Your task to perform on an android device: Show me popular games on the Play Store Image 0: 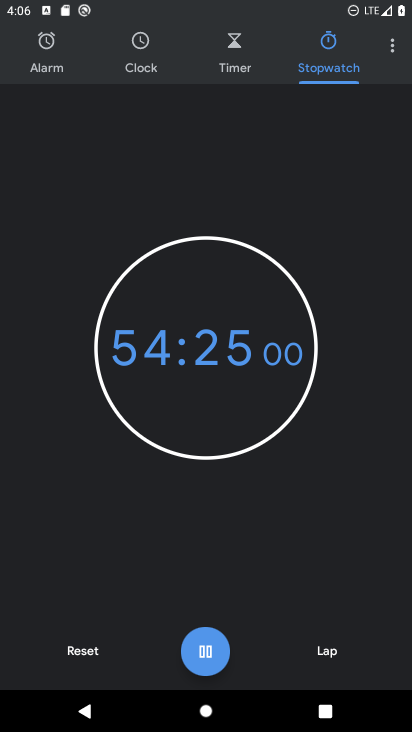
Step 0: press home button
Your task to perform on an android device: Show me popular games on the Play Store Image 1: 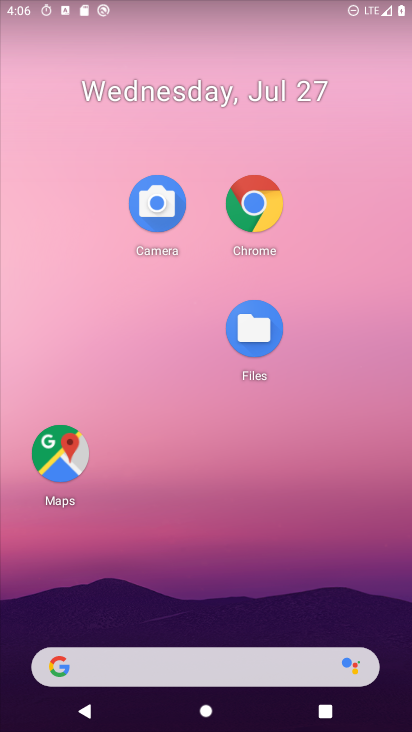
Step 1: drag from (201, 615) to (220, 152)
Your task to perform on an android device: Show me popular games on the Play Store Image 2: 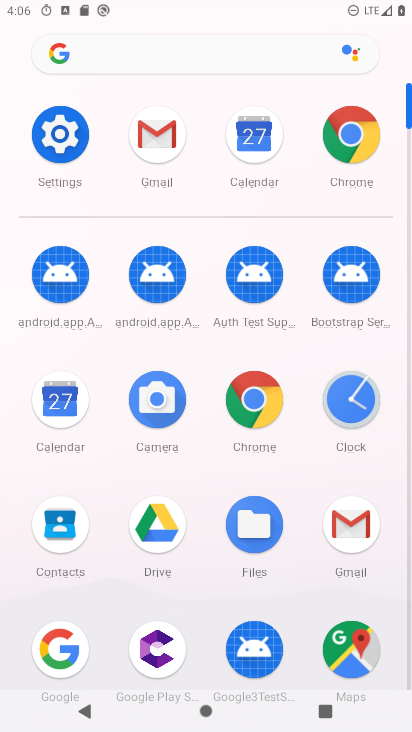
Step 2: drag from (111, 569) to (153, 261)
Your task to perform on an android device: Show me popular games on the Play Store Image 3: 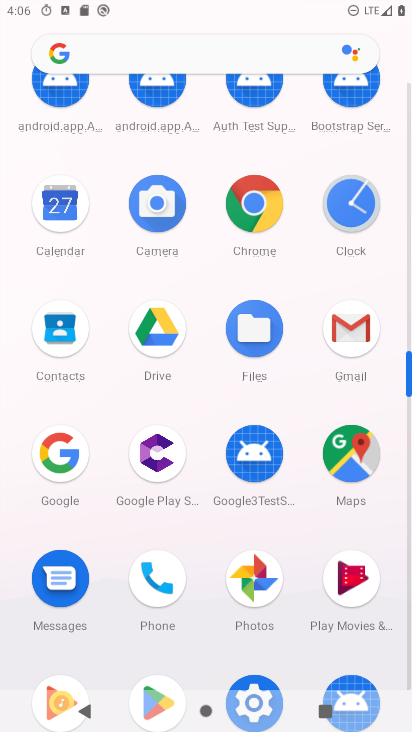
Step 3: drag from (129, 619) to (200, 236)
Your task to perform on an android device: Show me popular games on the Play Store Image 4: 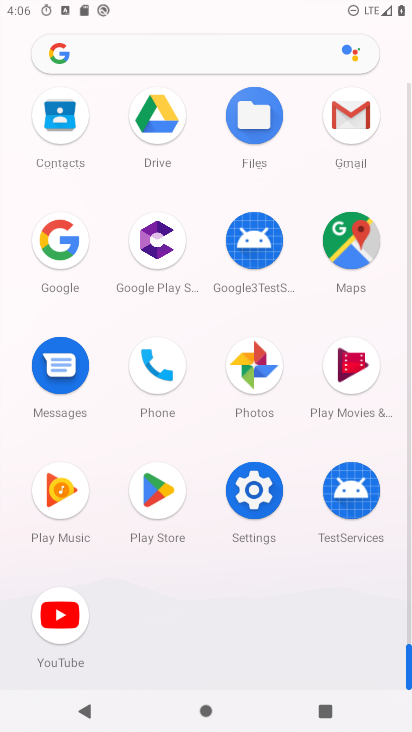
Step 4: click (158, 493)
Your task to perform on an android device: Show me popular games on the Play Store Image 5: 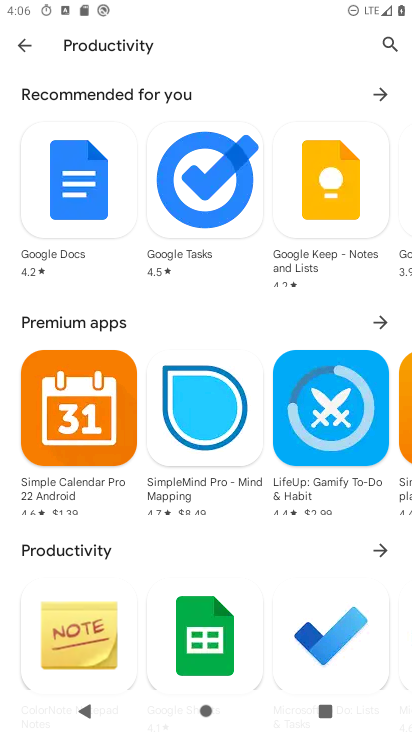
Step 5: click (29, 47)
Your task to perform on an android device: Show me popular games on the Play Store Image 6: 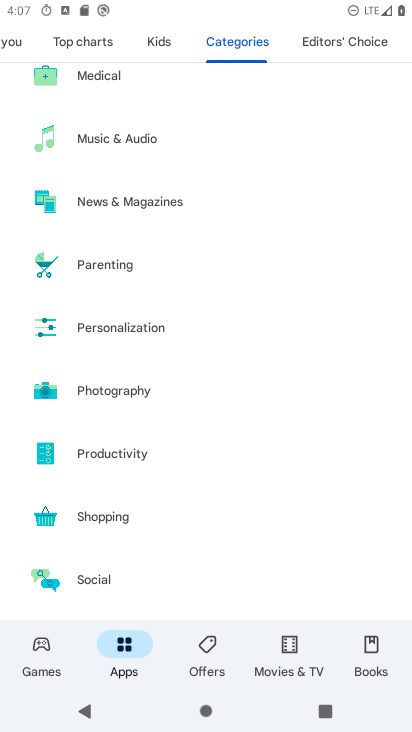
Step 6: click (51, 658)
Your task to perform on an android device: Show me popular games on the Play Store Image 7: 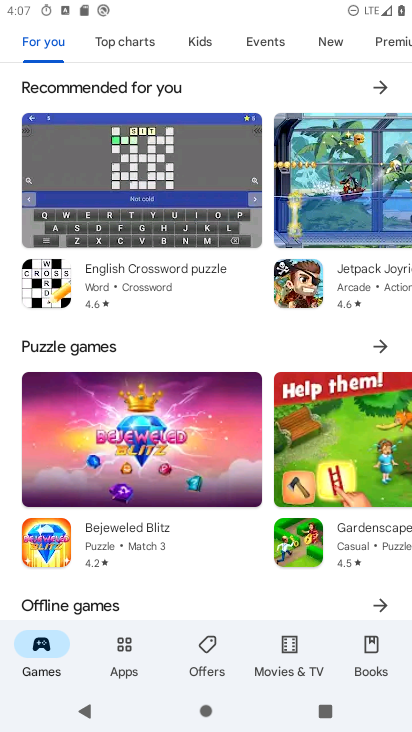
Step 7: click (137, 44)
Your task to perform on an android device: Show me popular games on the Play Store Image 8: 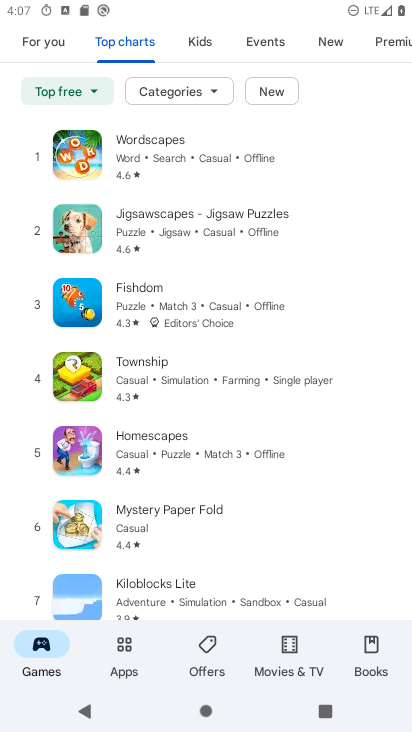
Step 8: task complete